Your task to perform on an android device: star an email in the gmail app Image 0: 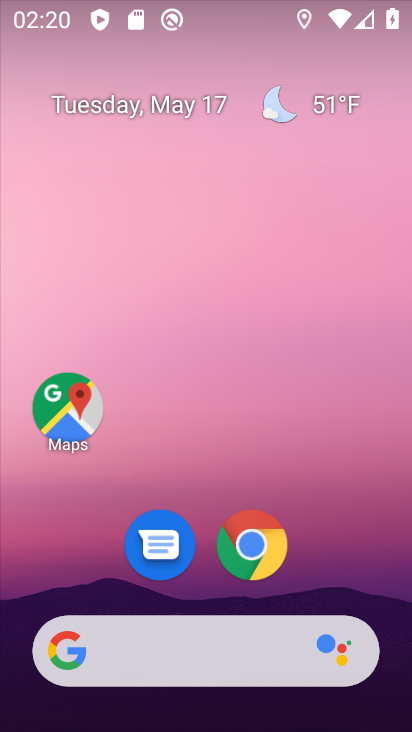
Step 0: drag from (230, 525) to (296, 79)
Your task to perform on an android device: star an email in the gmail app Image 1: 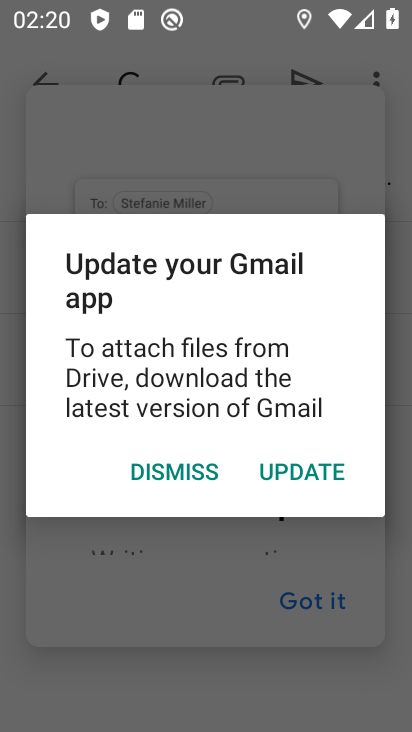
Step 1: click (318, 472)
Your task to perform on an android device: star an email in the gmail app Image 2: 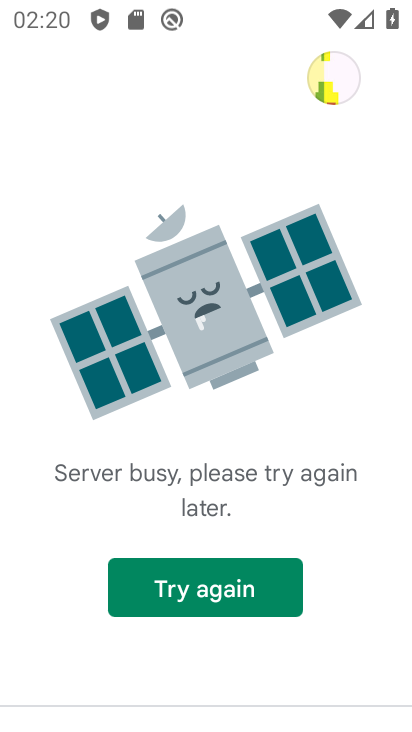
Step 2: click (222, 584)
Your task to perform on an android device: star an email in the gmail app Image 3: 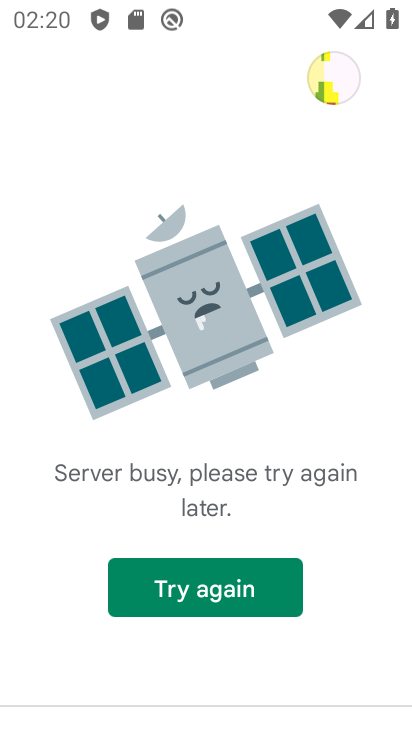
Step 3: task complete